Your task to perform on an android device: uninstall "DuckDuckGo Privacy Browser" Image 0: 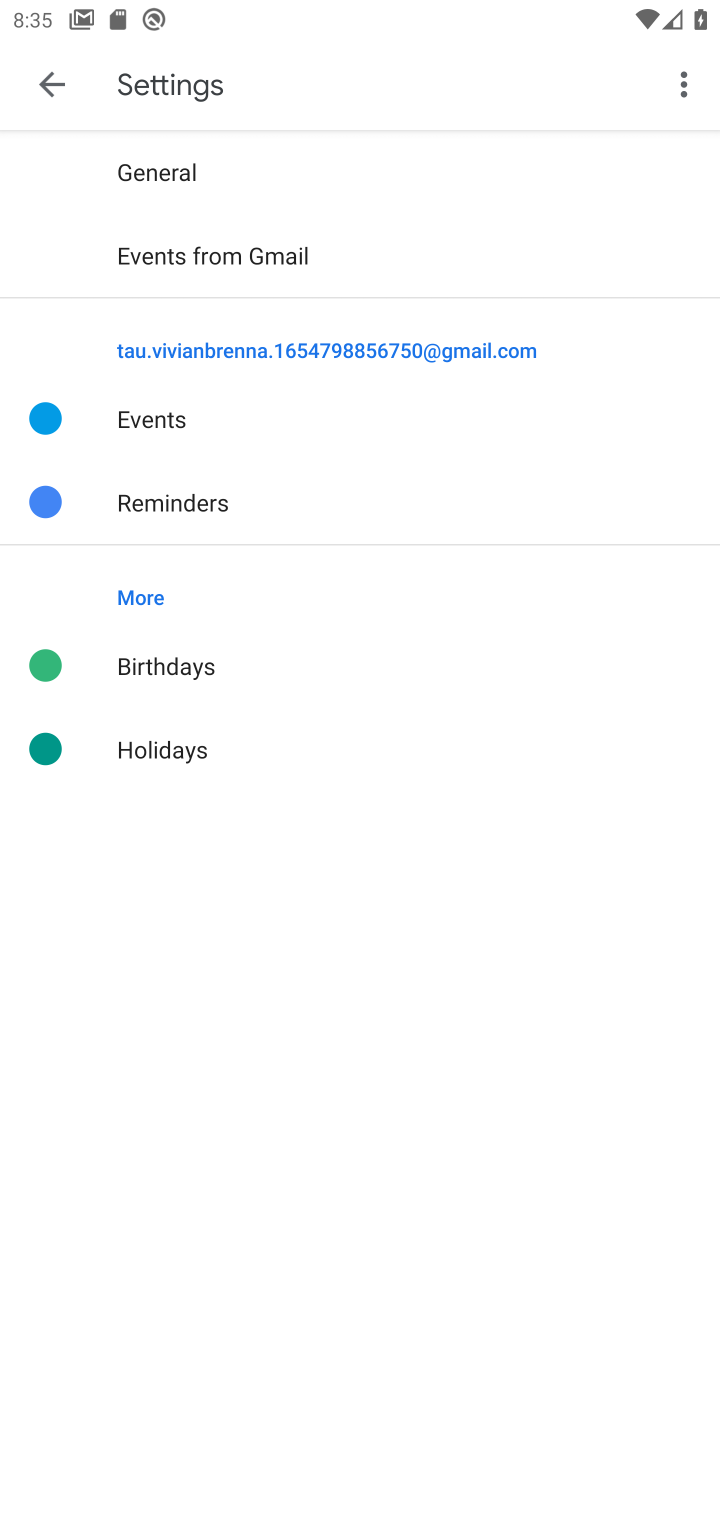
Step 0: press home button
Your task to perform on an android device: uninstall "DuckDuckGo Privacy Browser" Image 1: 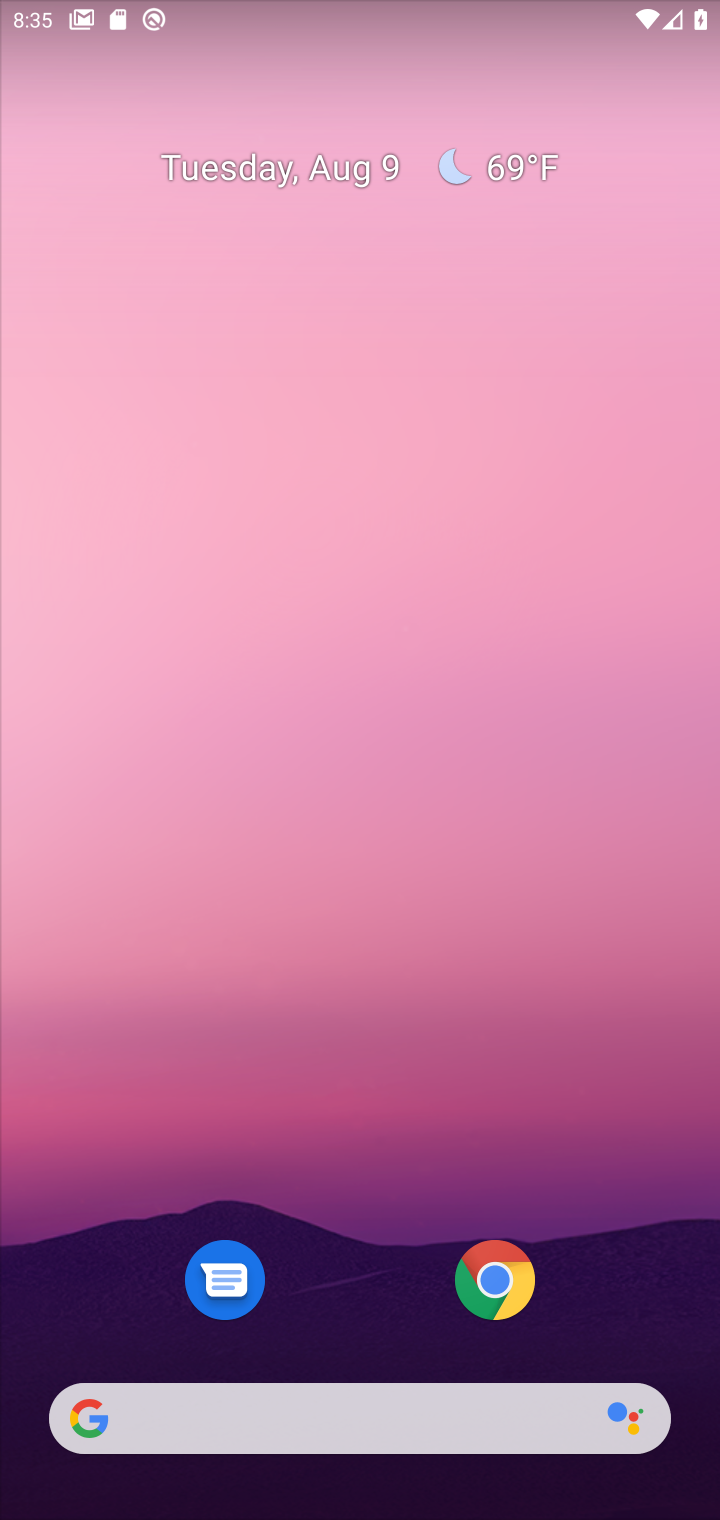
Step 1: click (313, 520)
Your task to perform on an android device: uninstall "DuckDuckGo Privacy Browser" Image 2: 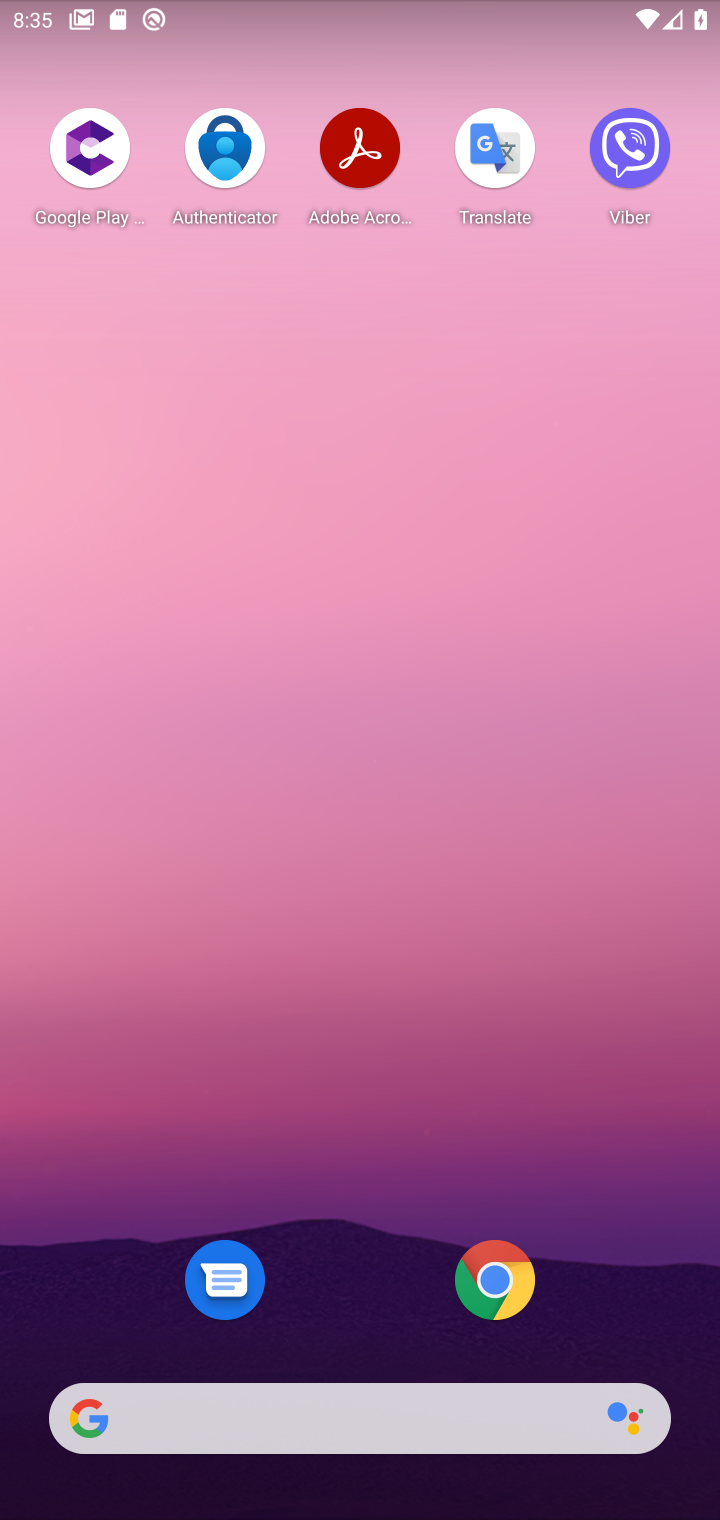
Step 2: drag from (354, 1375) to (329, 551)
Your task to perform on an android device: uninstall "DuckDuckGo Privacy Browser" Image 3: 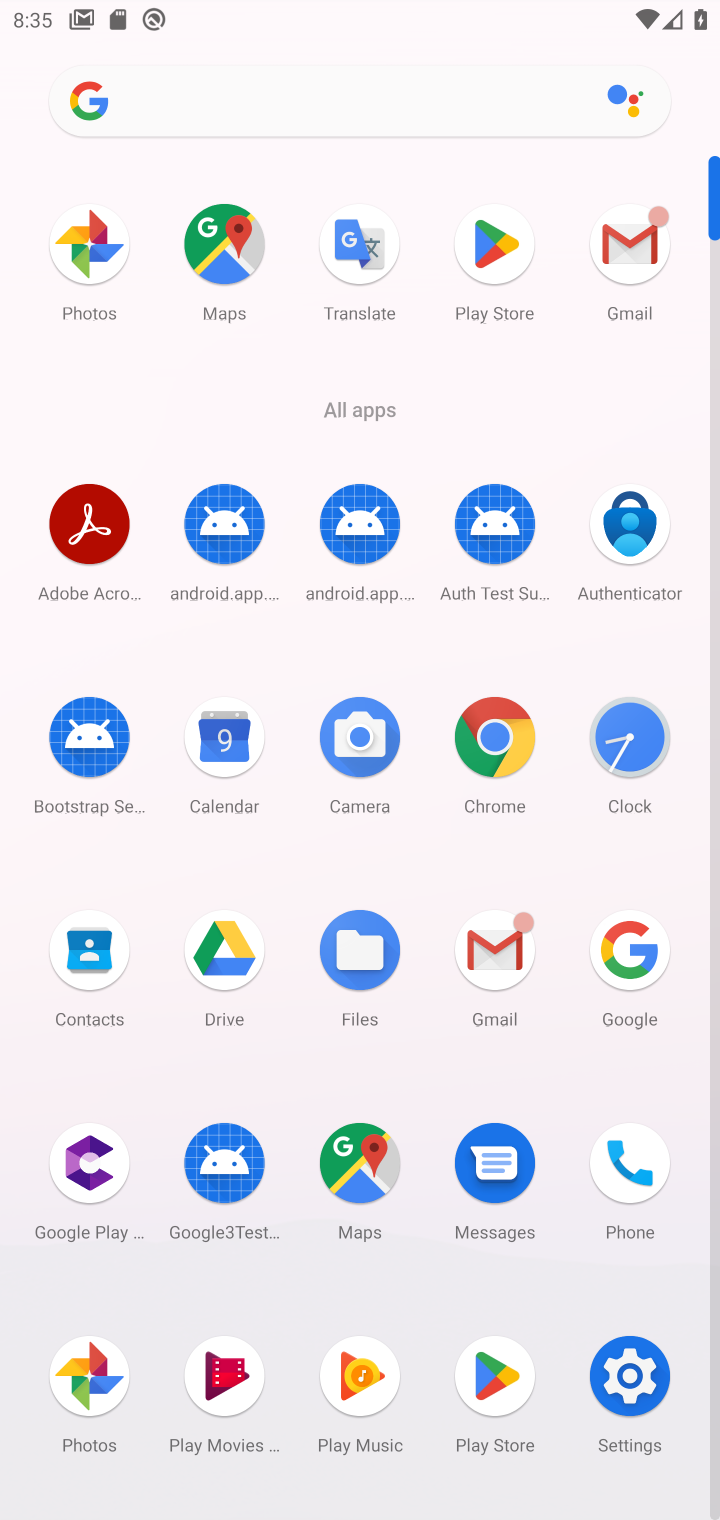
Step 3: click (486, 1395)
Your task to perform on an android device: uninstall "DuckDuckGo Privacy Browser" Image 4: 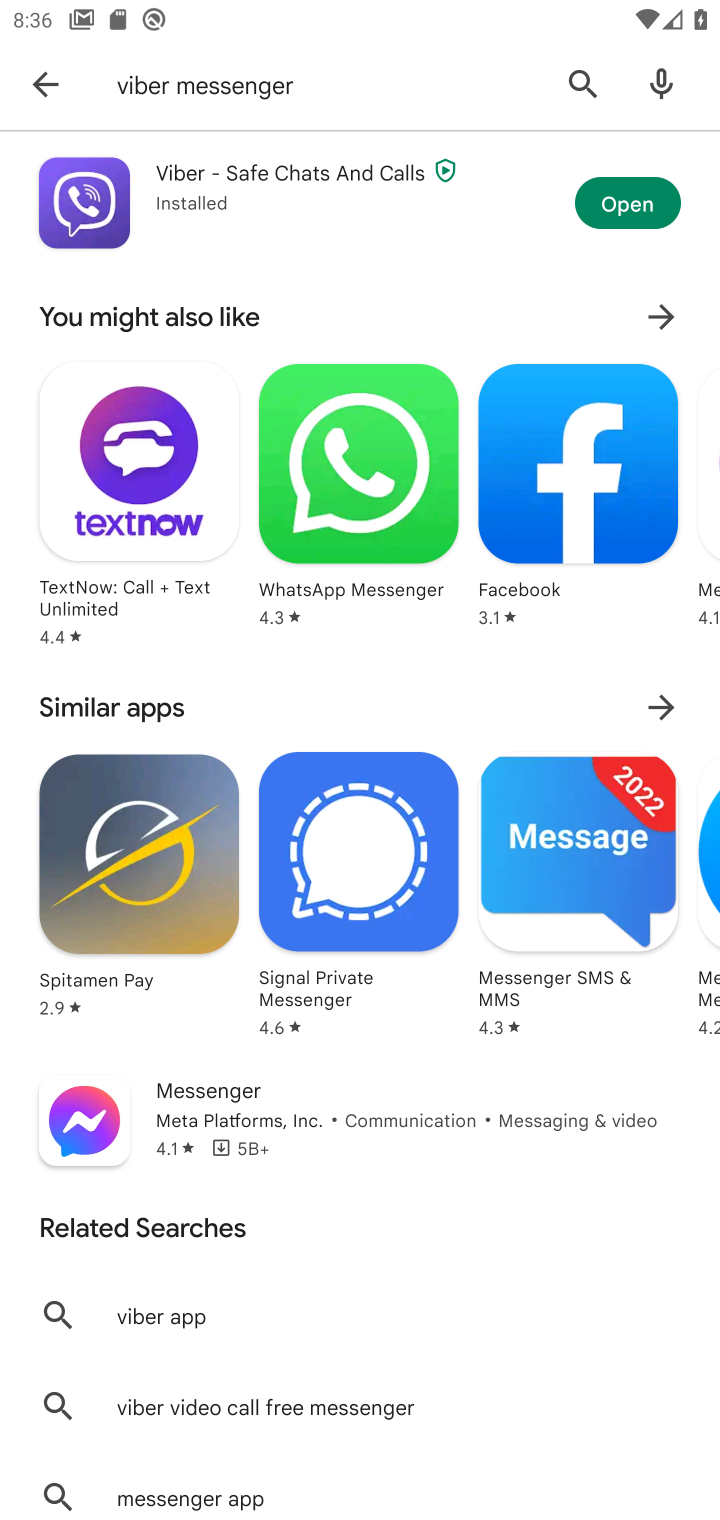
Step 4: click (576, 92)
Your task to perform on an android device: uninstall "DuckDuckGo Privacy Browser" Image 5: 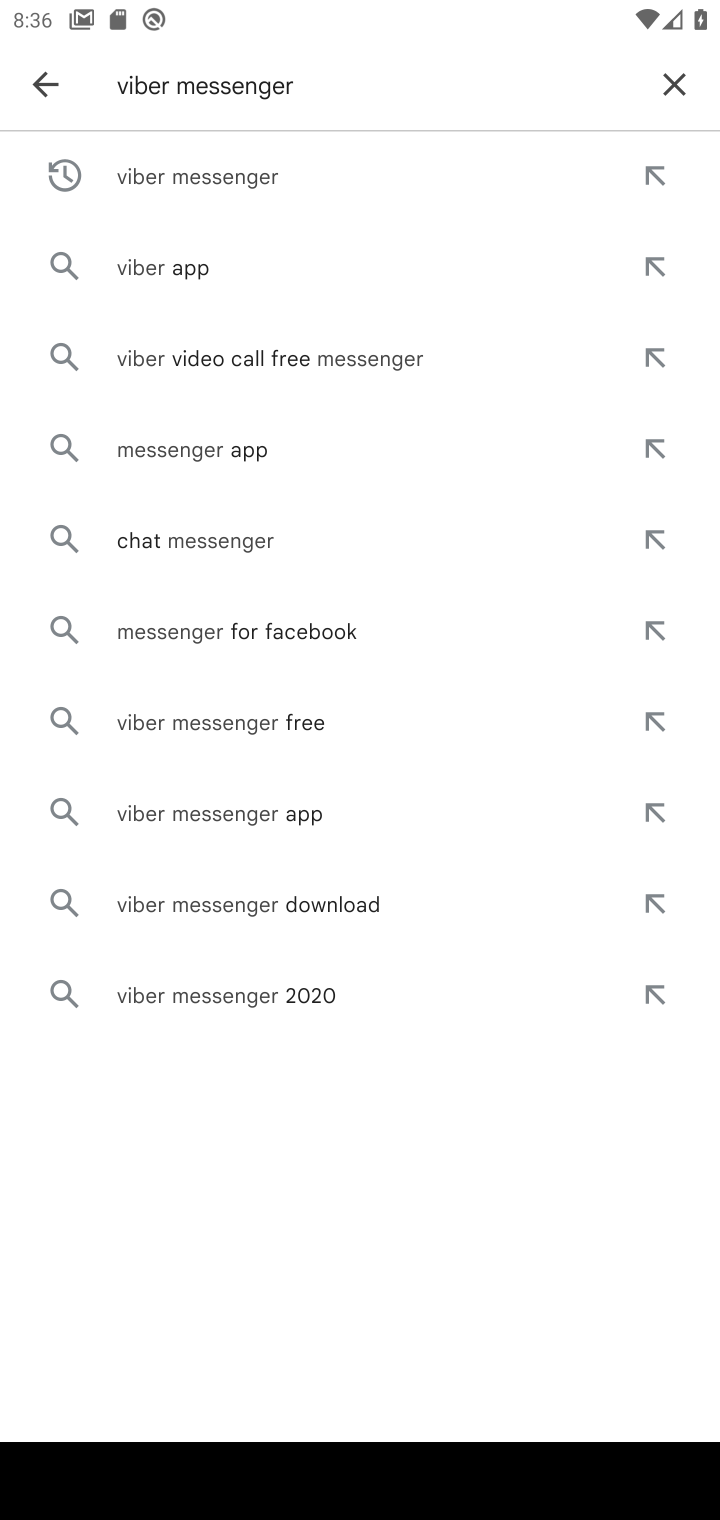
Step 5: click (673, 91)
Your task to perform on an android device: uninstall "DuckDuckGo Privacy Browser" Image 6: 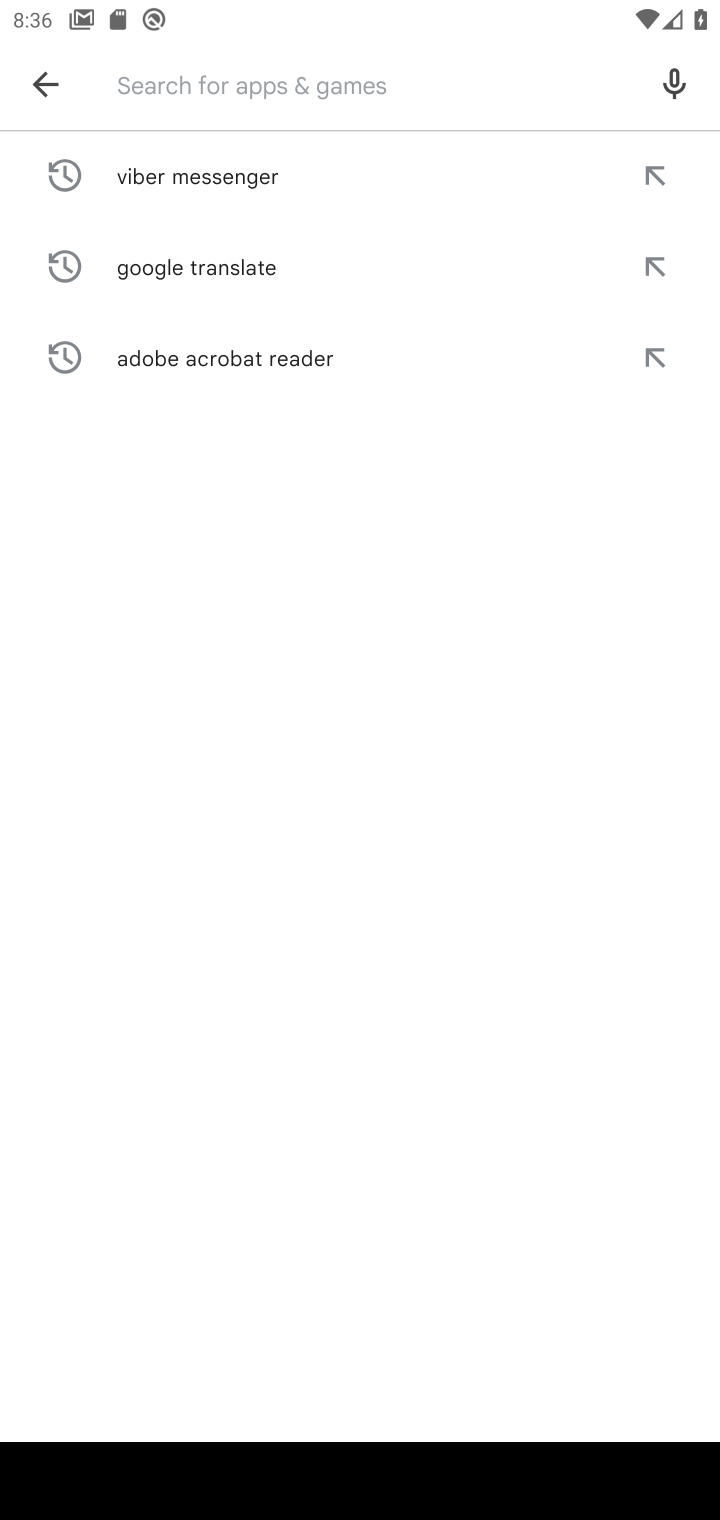
Step 6: type "duckduckgo privacy browser"
Your task to perform on an android device: uninstall "DuckDuckGo Privacy Browser" Image 7: 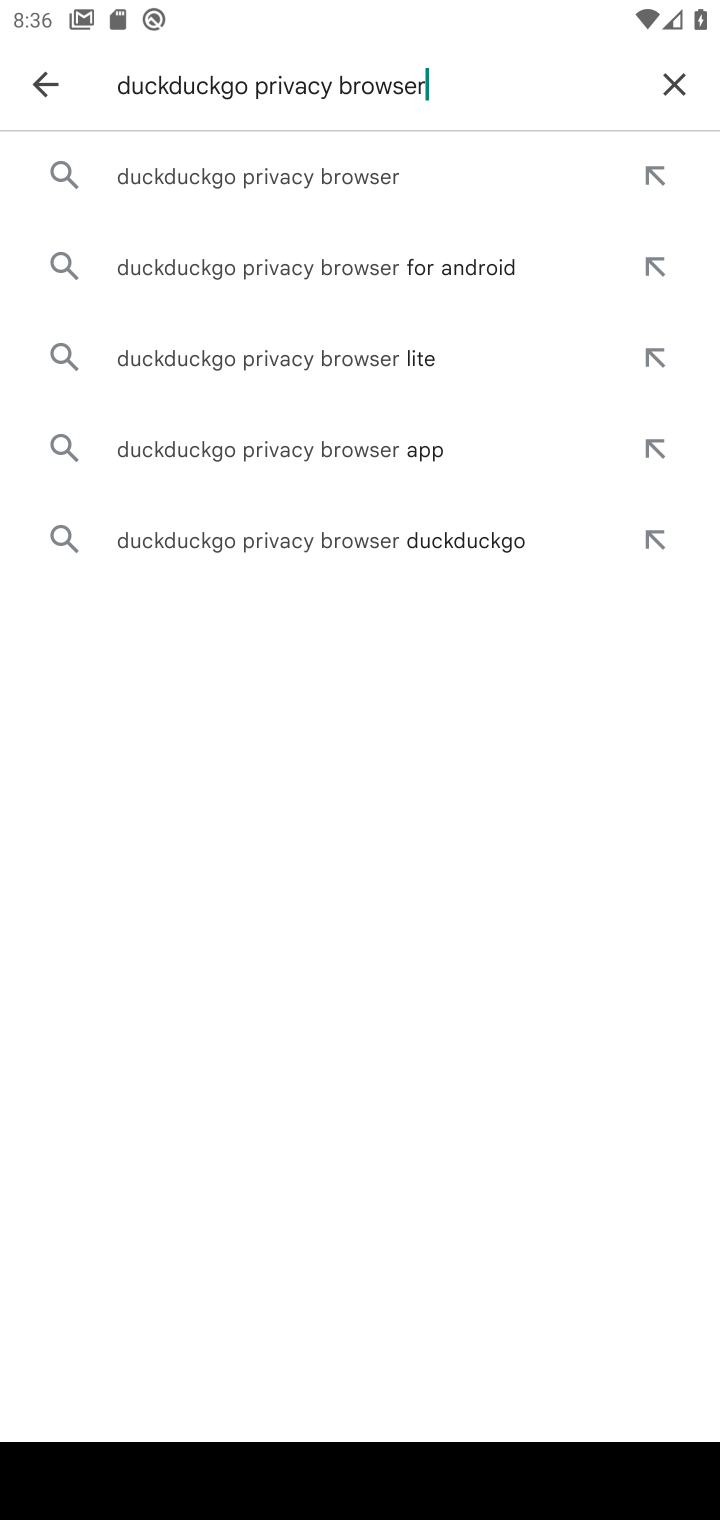
Step 7: click (198, 170)
Your task to perform on an android device: uninstall "DuckDuckGo Privacy Browser" Image 8: 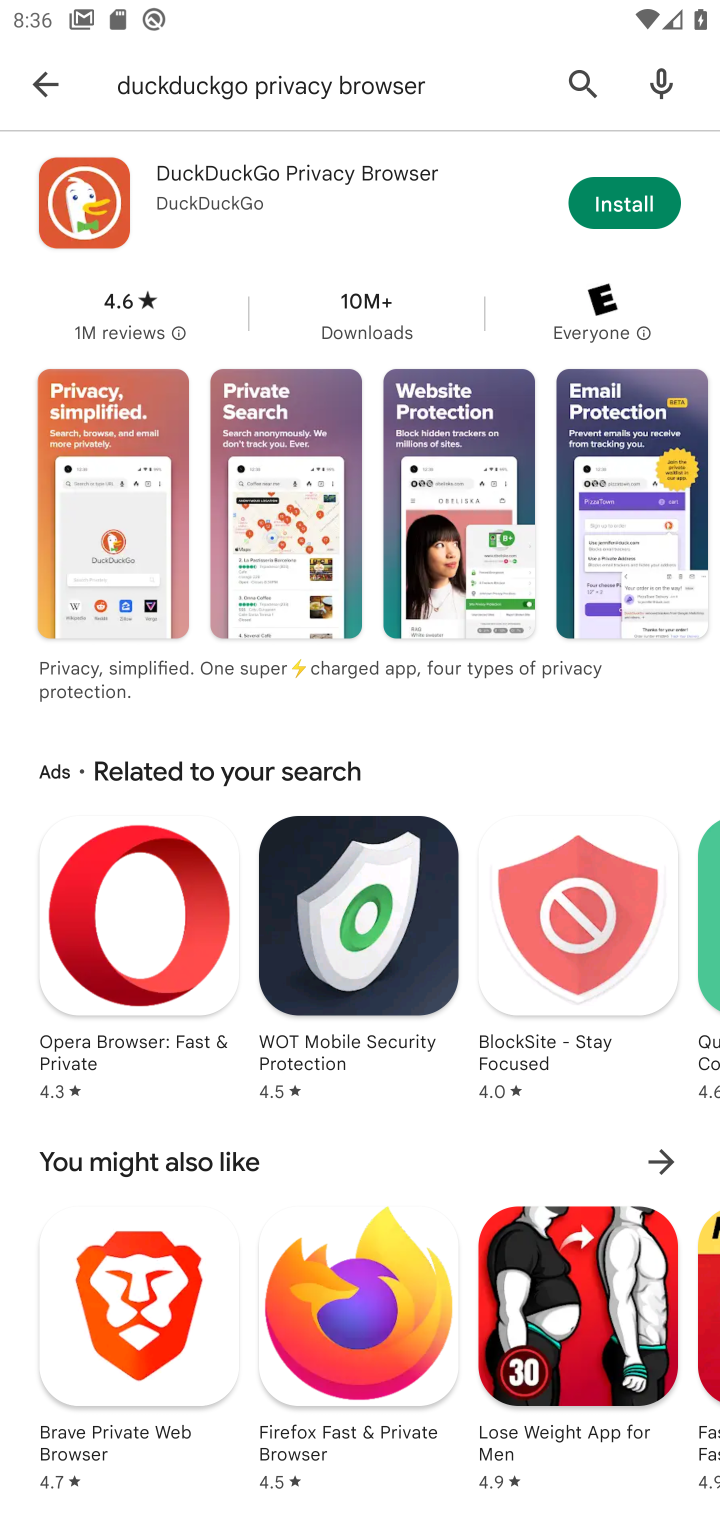
Step 8: task complete